Your task to perform on an android device: turn on sleep mode Image 0: 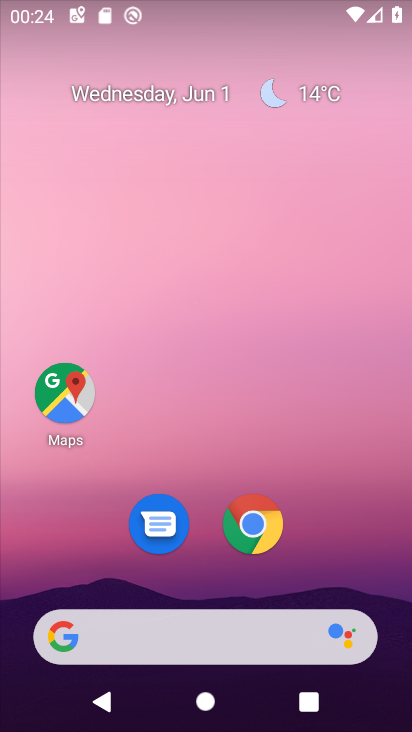
Step 0: drag from (313, 534) to (337, 25)
Your task to perform on an android device: turn on sleep mode Image 1: 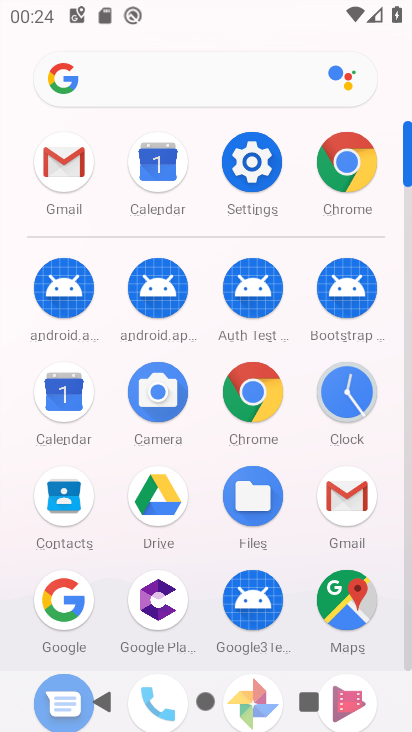
Step 1: click (262, 144)
Your task to perform on an android device: turn on sleep mode Image 2: 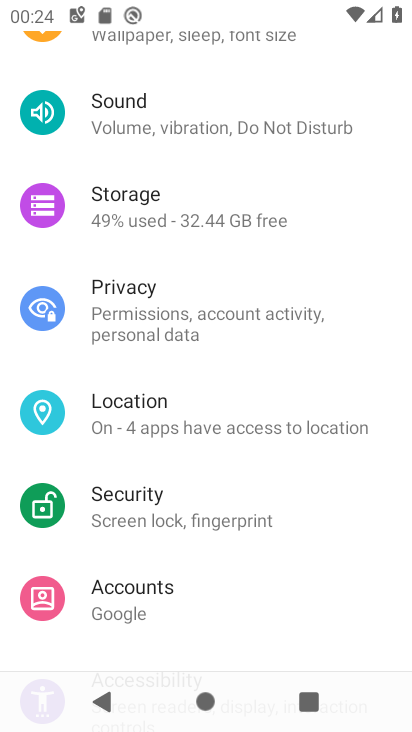
Step 2: drag from (228, 191) to (241, 461)
Your task to perform on an android device: turn on sleep mode Image 3: 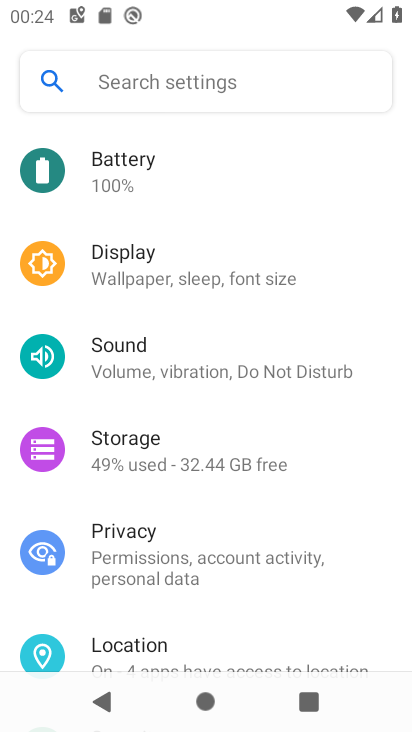
Step 3: click (218, 272)
Your task to perform on an android device: turn on sleep mode Image 4: 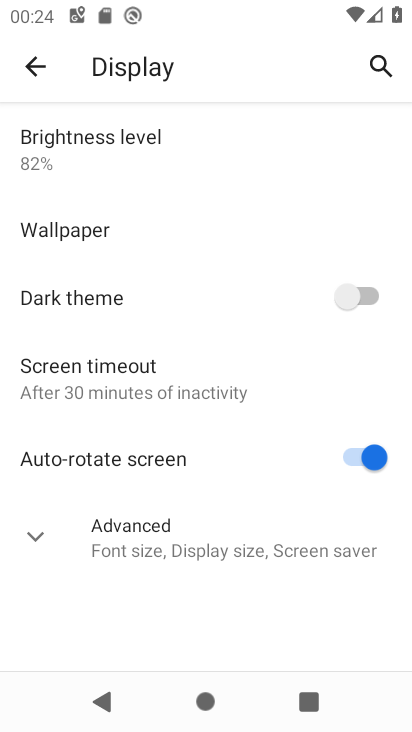
Step 4: click (35, 532)
Your task to perform on an android device: turn on sleep mode Image 5: 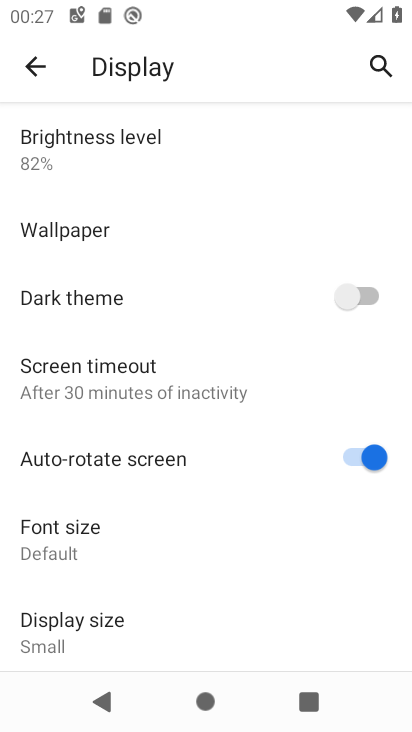
Step 5: task complete